Your task to perform on an android device: turn on translation in the chrome app Image 0: 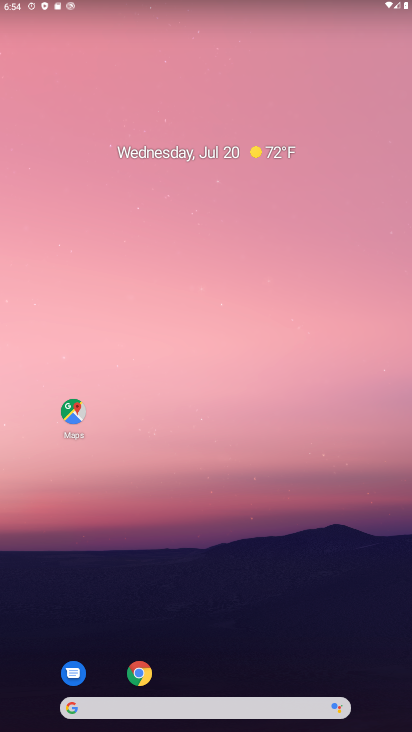
Step 0: drag from (378, 668) to (185, 48)
Your task to perform on an android device: turn on translation in the chrome app Image 1: 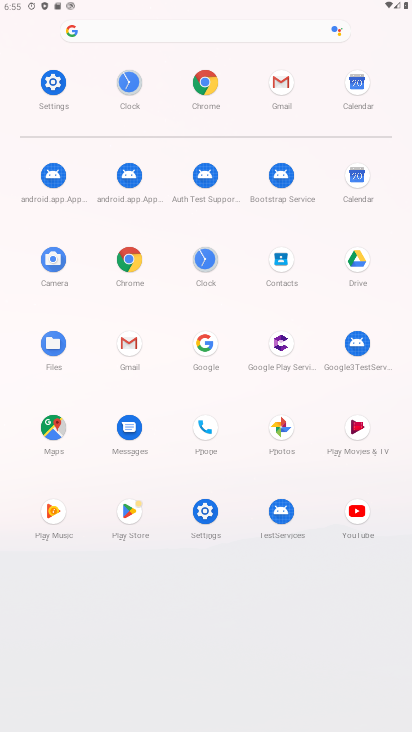
Step 1: click (126, 268)
Your task to perform on an android device: turn on translation in the chrome app Image 2: 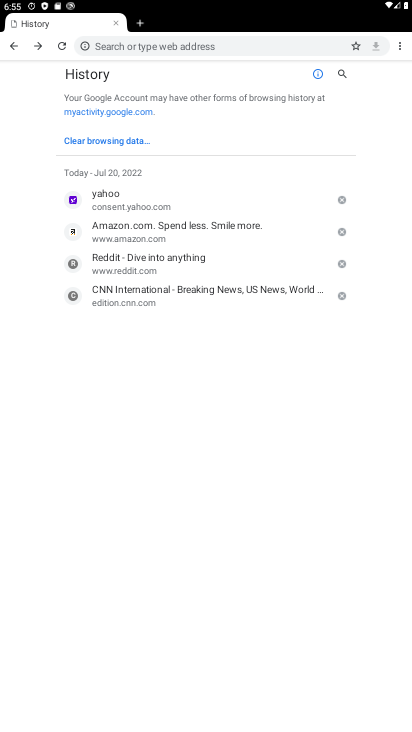
Step 2: click (400, 43)
Your task to perform on an android device: turn on translation in the chrome app Image 3: 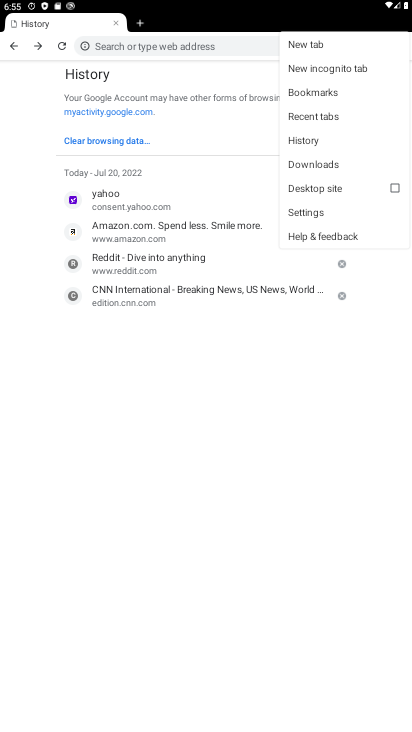
Step 3: click (307, 213)
Your task to perform on an android device: turn on translation in the chrome app Image 4: 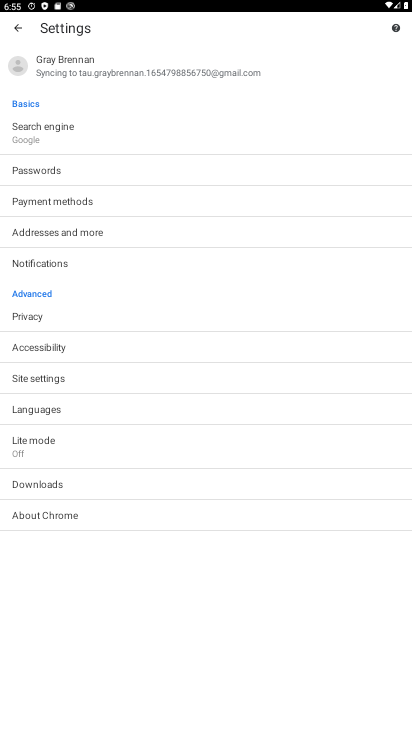
Step 4: click (78, 413)
Your task to perform on an android device: turn on translation in the chrome app Image 5: 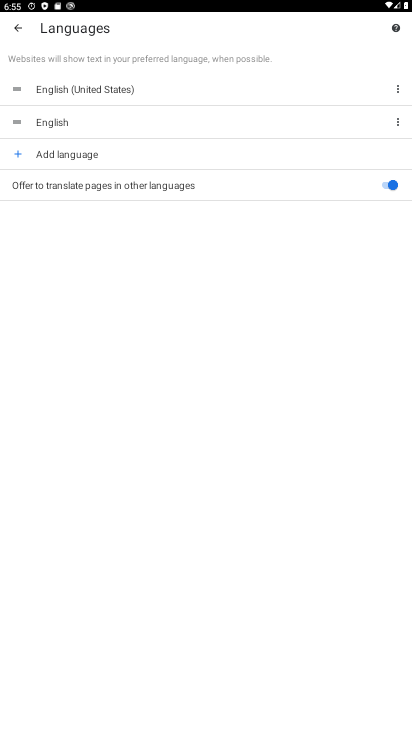
Step 5: task complete